Your task to perform on an android device: delete browsing data in the chrome app Image 0: 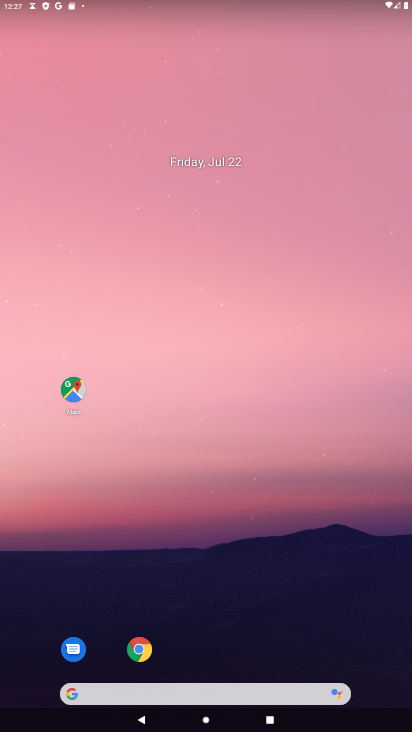
Step 0: click (138, 655)
Your task to perform on an android device: delete browsing data in the chrome app Image 1: 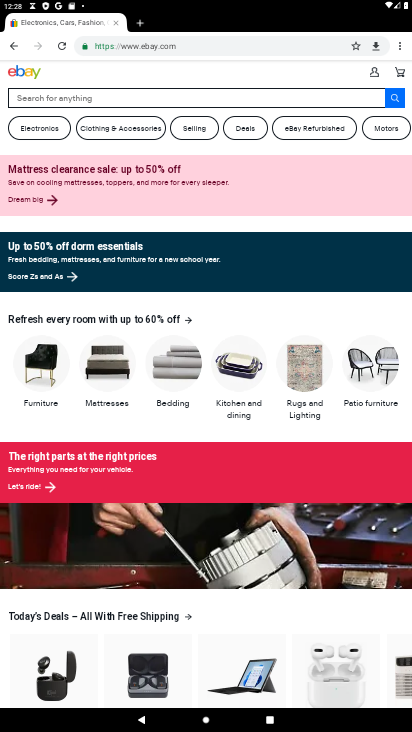
Step 1: click (138, 655)
Your task to perform on an android device: delete browsing data in the chrome app Image 2: 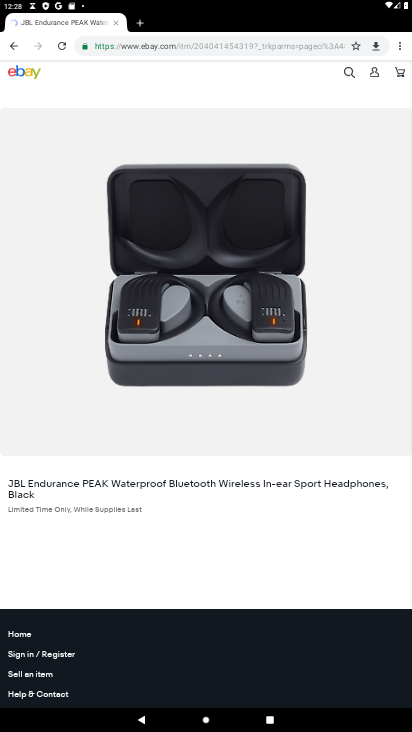
Step 2: click (396, 41)
Your task to perform on an android device: delete browsing data in the chrome app Image 3: 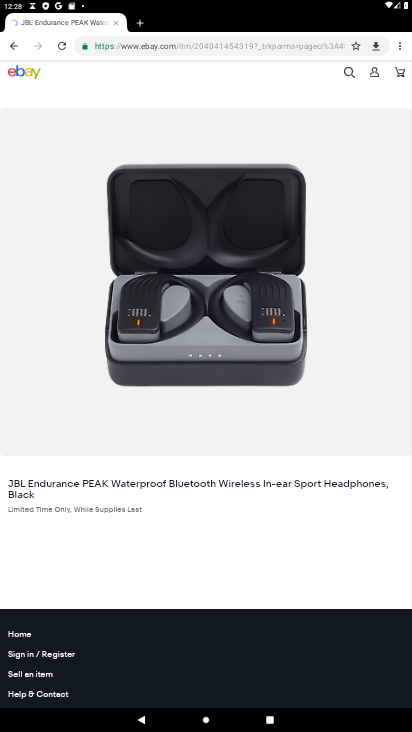
Step 3: click (396, 41)
Your task to perform on an android device: delete browsing data in the chrome app Image 4: 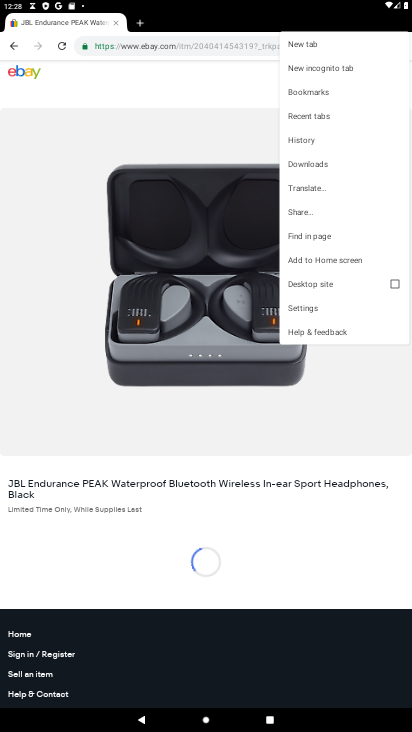
Step 4: click (396, 41)
Your task to perform on an android device: delete browsing data in the chrome app Image 5: 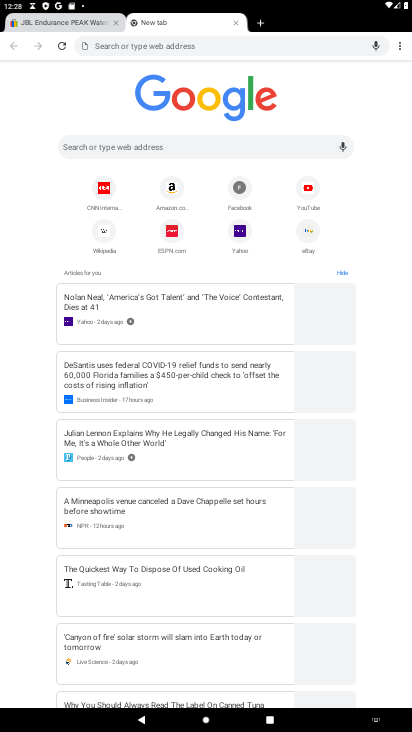
Step 5: click (401, 45)
Your task to perform on an android device: delete browsing data in the chrome app Image 6: 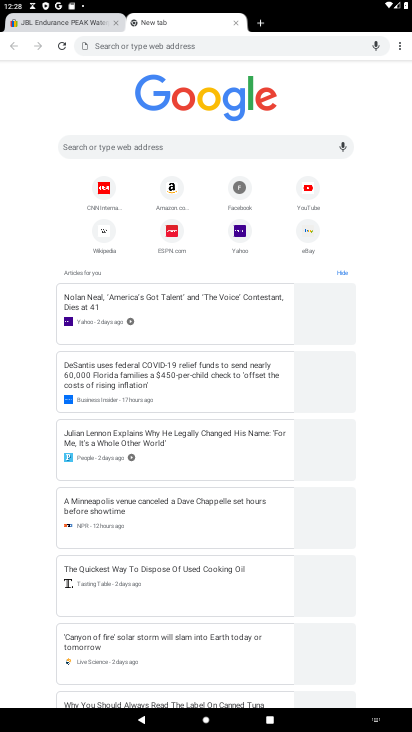
Step 6: click (401, 45)
Your task to perform on an android device: delete browsing data in the chrome app Image 7: 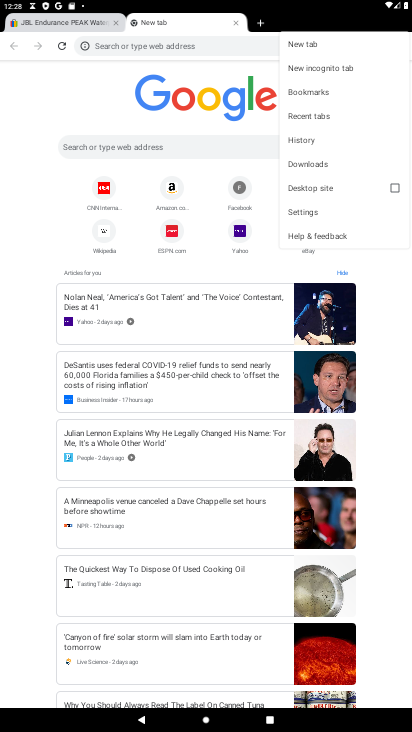
Step 7: click (300, 137)
Your task to perform on an android device: delete browsing data in the chrome app Image 8: 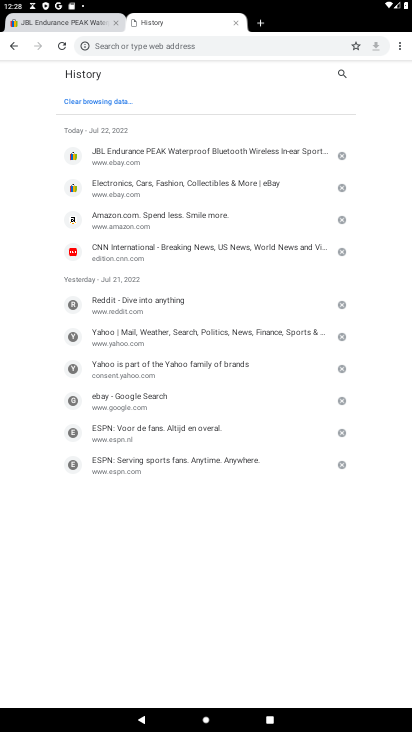
Step 8: click (100, 104)
Your task to perform on an android device: delete browsing data in the chrome app Image 9: 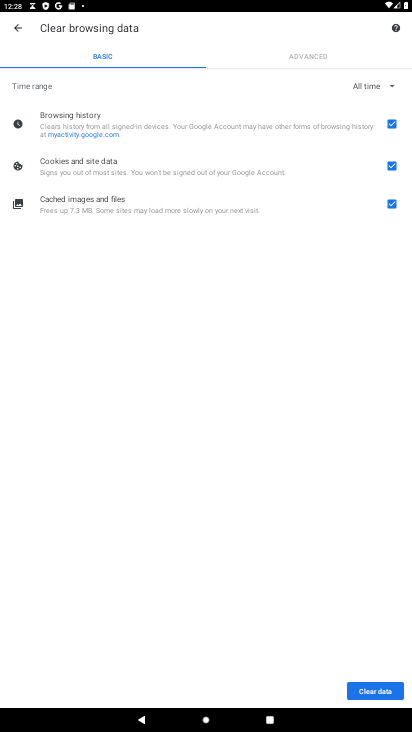
Step 9: click (363, 687)
Your task to perform on an android device: delete browsing data in the chrome app Image 10: 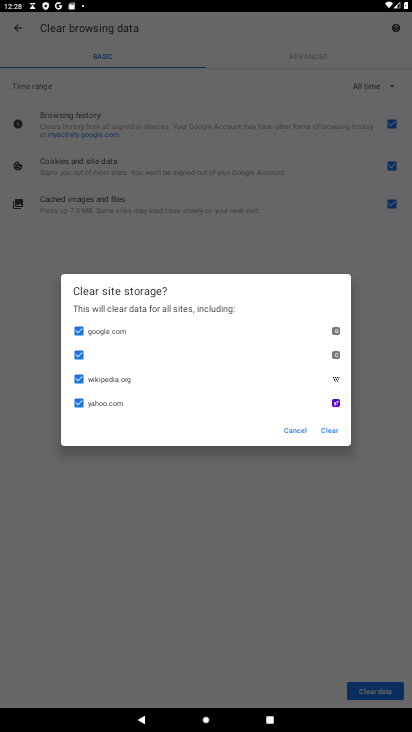
Step 10: click (331, 428)
Your task to perform on an android device: delete browsing data in the chrome app Image 11: 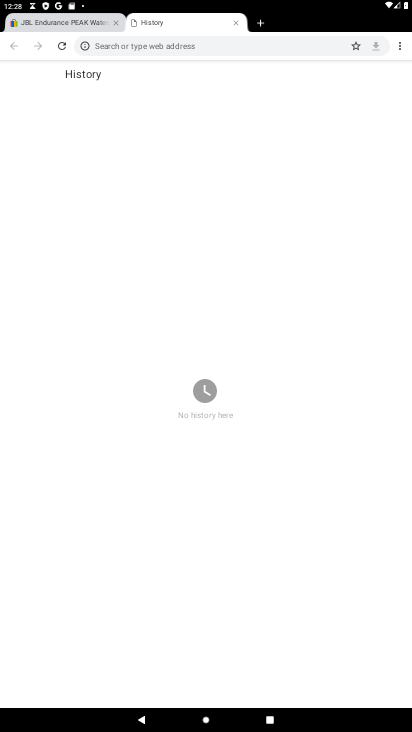
Step 11: task complete